Your task to perform on an android device: What's the weather going to be this weekend? Image 0: 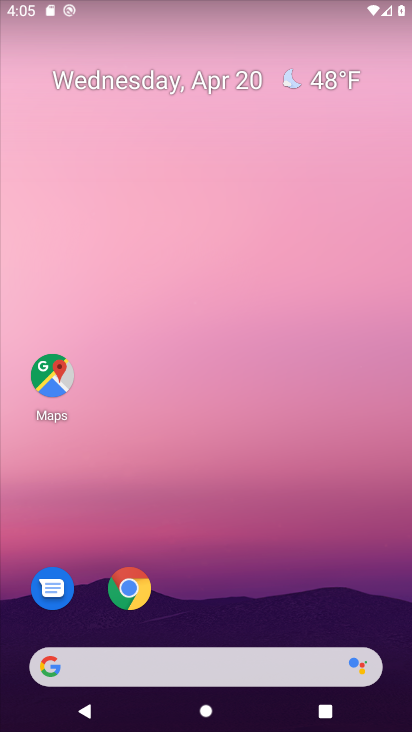
Step 0: click (194, 667)
Your task to perform on an android device: What's the weather going to be this weekend? Image 1: 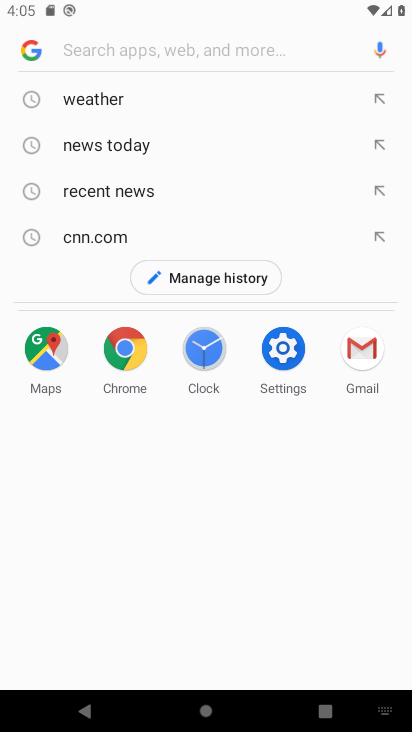
Step 1: click (112, 101)
Your task to perform on an android device: What's the weather going to be this weekend? Image 2: 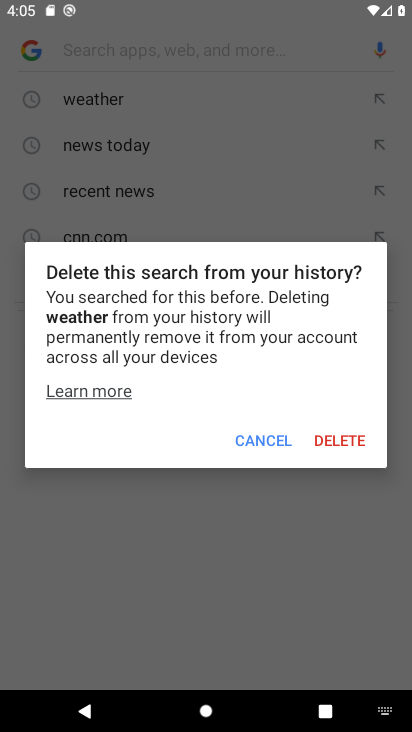
Step 2: click (250, 441)
Your task to perform on an android device: What's the weather going to be this weekend? Image 3: 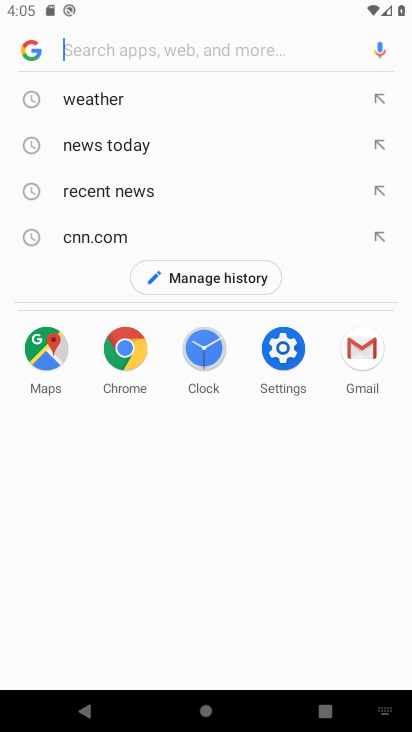
Step 3: click (85, 102)
Your task to perform on an android device: What's the weather going to be this weekend? Image 4: 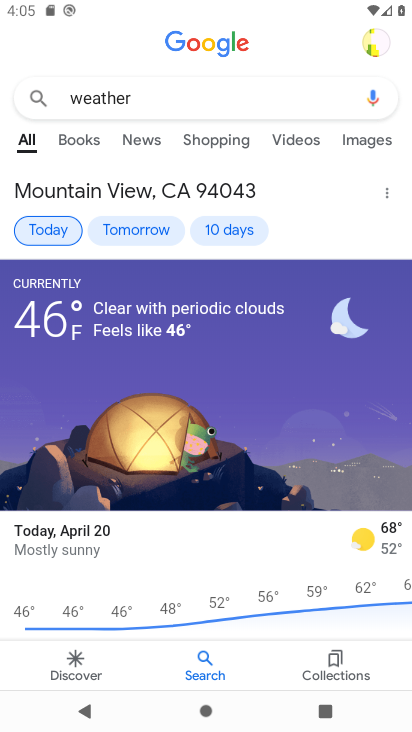
Step 4: click (237, 232)
Your task to perform on an android device: What's the weather going to be this weekend? Image 5: 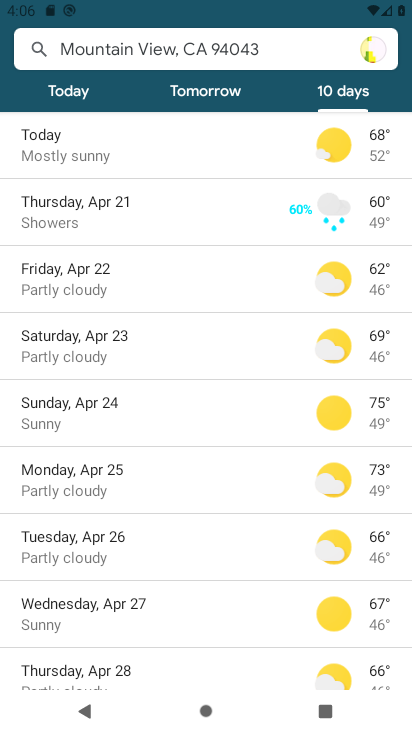
Step 5: task complete